Your task to perform on an android device: remove spam from my inbox in the gmail app Image 0: 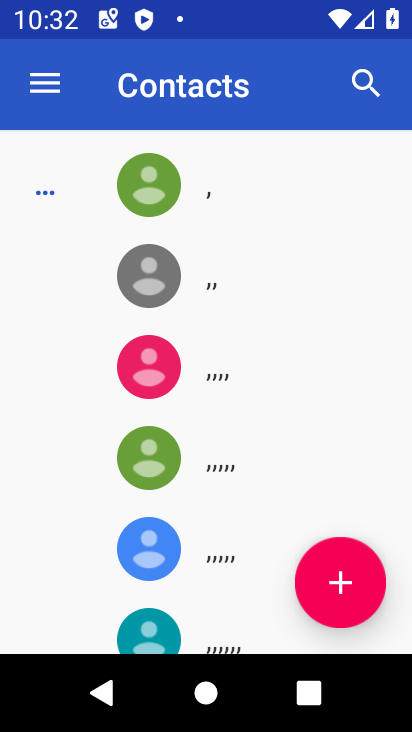
Step 0: press home button
Your task to perform on an android device: remove spam from my inbox in the gmail app Image 1: 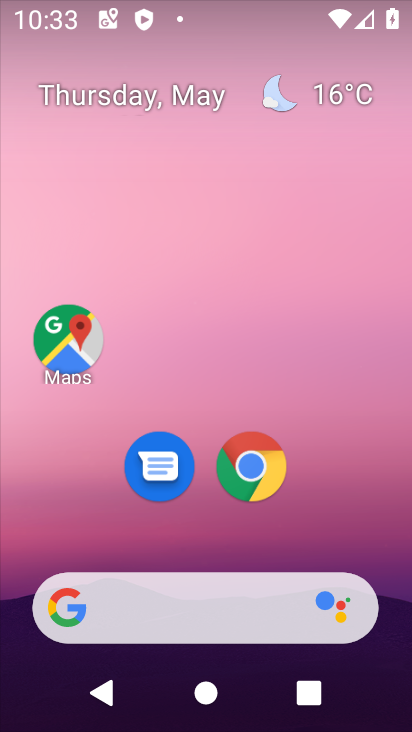
Step 1: drag from (221, 527) to (347, 186)
Your task to perform on an android device: remove spam from my inbox in the gmail app Image 2: 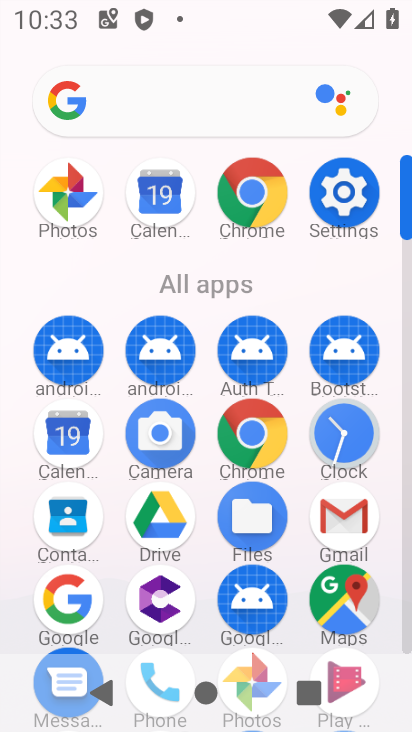
Step 2: click (340, 494)
Your task to perform on an android device: remove spam from my inbox in the gmail app Image 3: 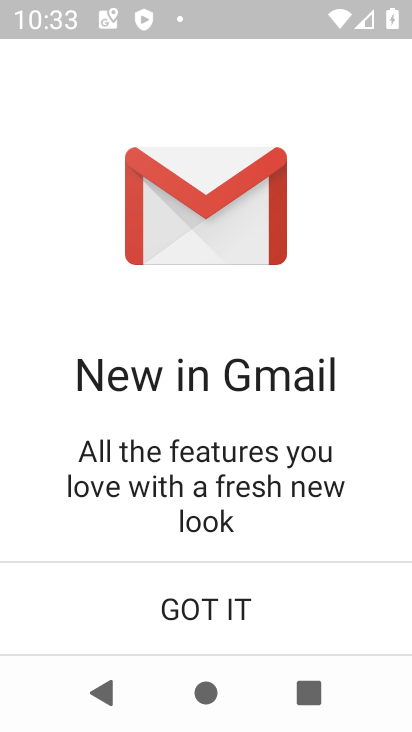
Step 3: click (207, 584)
Your task to perform on an android device: remove spam from my inbox in the gmail app Image 4: 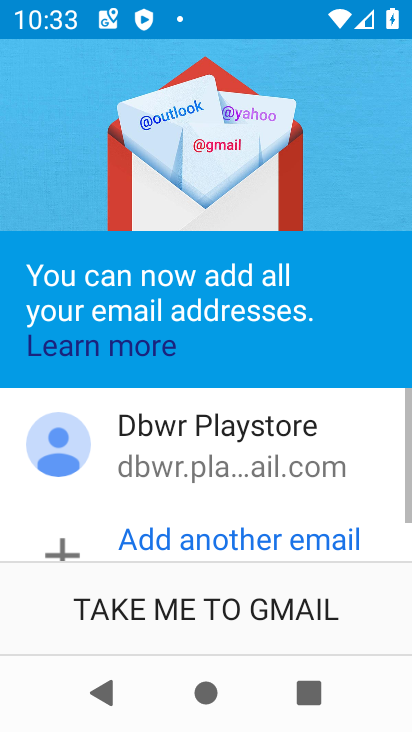
Step 4: click (211, 599)
Your task to perform on an android device: remove spam from my inbox in the gmail app Image 5: 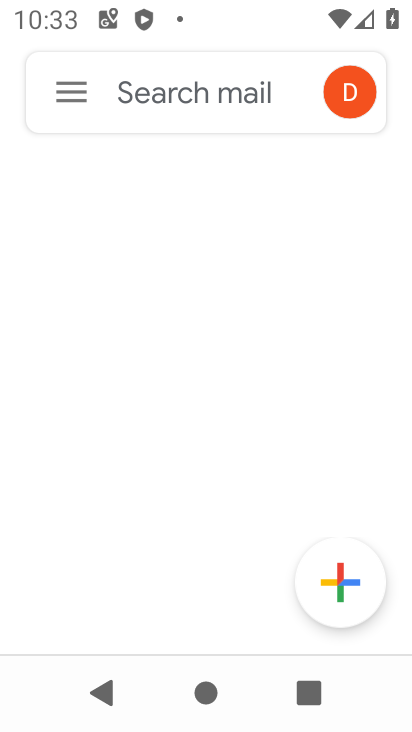
Step 5: click (75, 87)
Your task to perform on an android device: remove spam from my inbox in the gmail app Image 6: 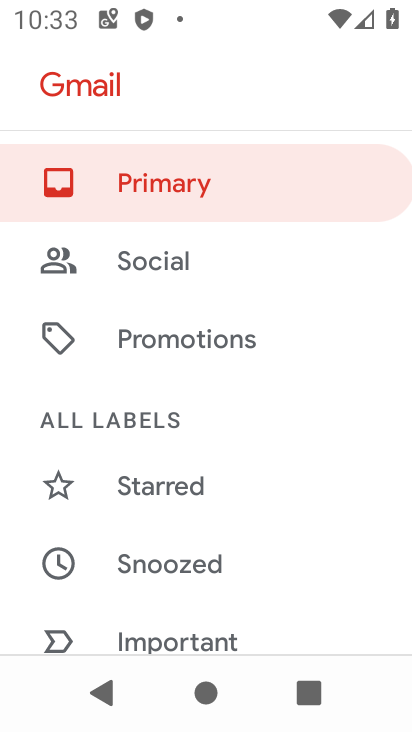
Step 6: drag from (165, 574) to (221, 221)
Your task to perform on an android device: remove spam from my inbox in the gmail app Image 7: 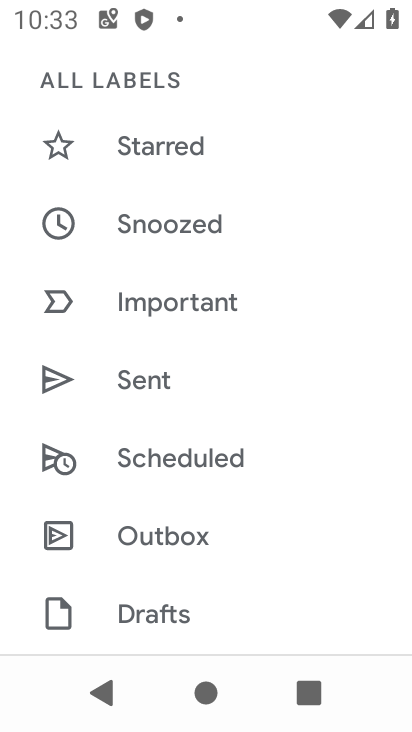
Step 7: drag from (185, 574) to (268, 227)
Your task to perform on an android device: remove spam from my inbox in the gmail app Image 8: 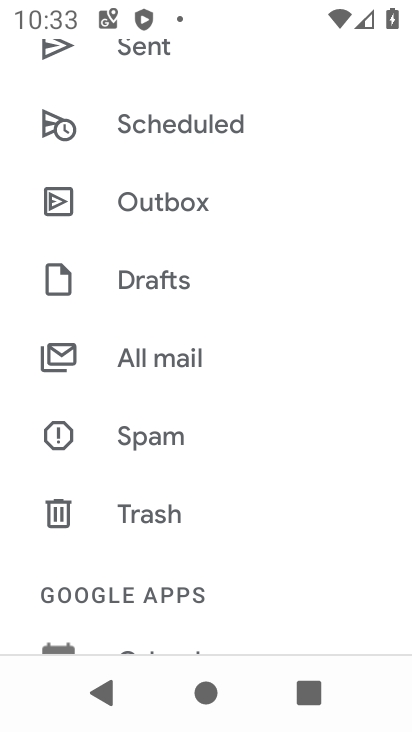
Step 8: drag from (127, 548) to (269, 214)
Your task to perform on an android device: remove spam from my inbox in the gmail app Image 9: 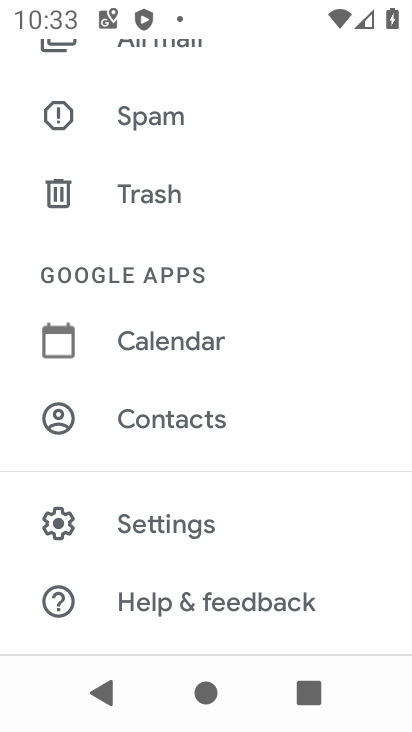
Step 9: click (137, 506)
Your task to perform on an android device: remove spam from my inbox in the gmail app Image 10: 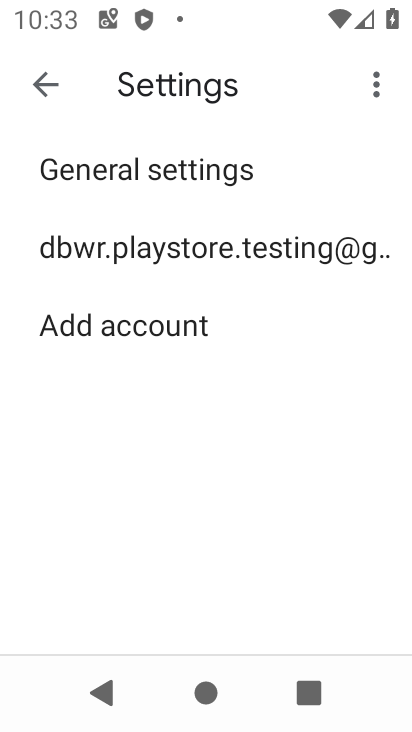
Step 10: click (42, 88)
Your task to perform on an android device: remove spam from my inbox in the gmail app Image 11: 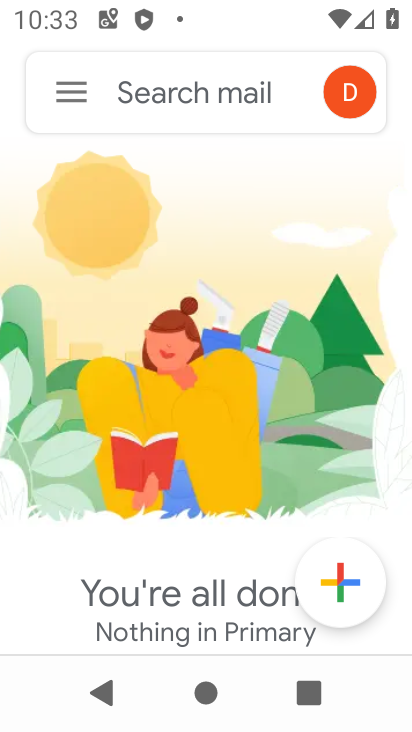
Step 11: click (65, 90)
Your task to perform on an android device: remove spam from my inbox in the gmail app Image 12: 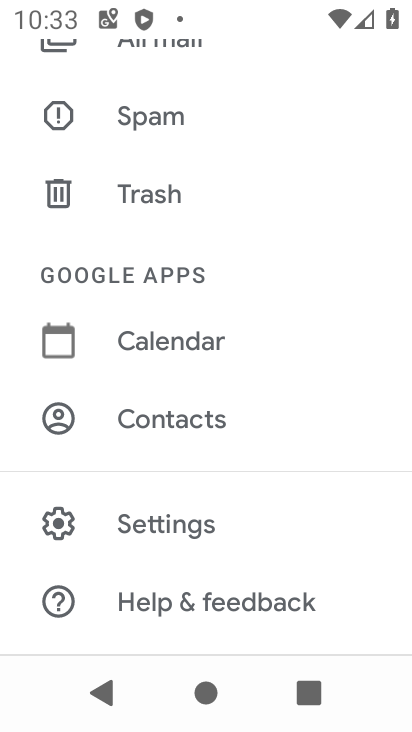
Step 12: click (199, 114)
Your task to perform on an android device: remove spam from my inbox in the gmail app Image 13: 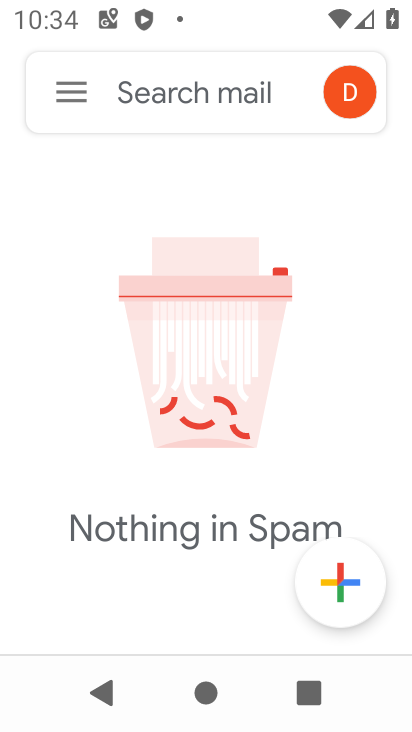
Step 13: task complete